Your task to perform on an android device: turn on priority inbox in the gmail app Image 0: 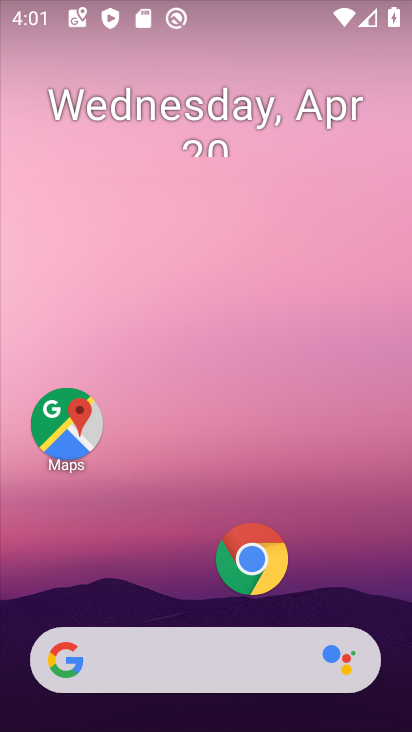
Step 0: click (156, 194)
Your task to perform on an android device: turn on priority inbox in the gmail app Image 1: 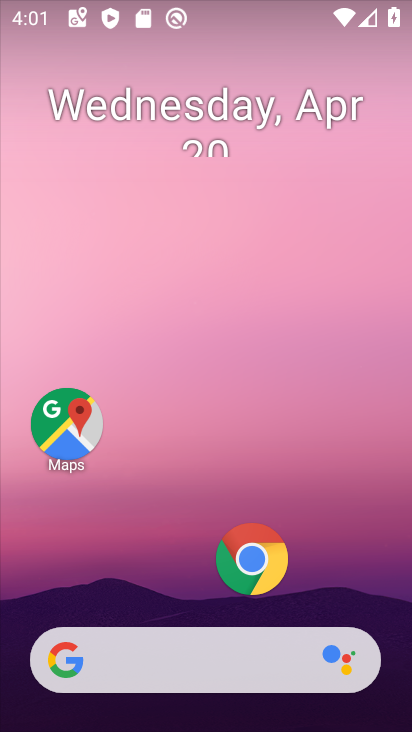
Step 1: drag from (131, 551) to (228, 100)
Your task to perform on an android device: turn on priority inbox in the gmail app Image 2: 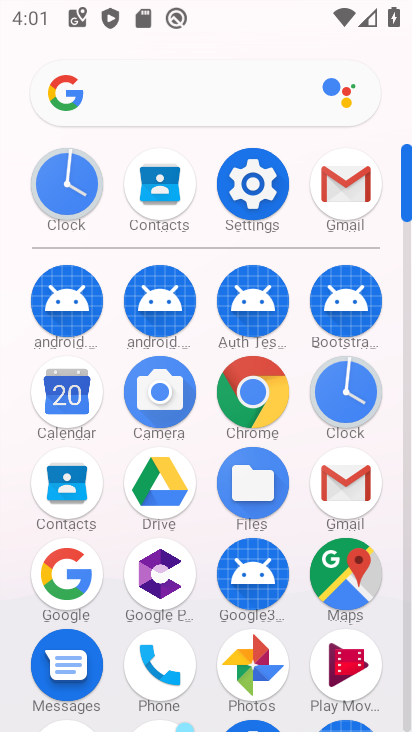
Step 2: click (338, 181)
Your task to perform on an android device: turn on priority inbox in the gmail app Image 3: 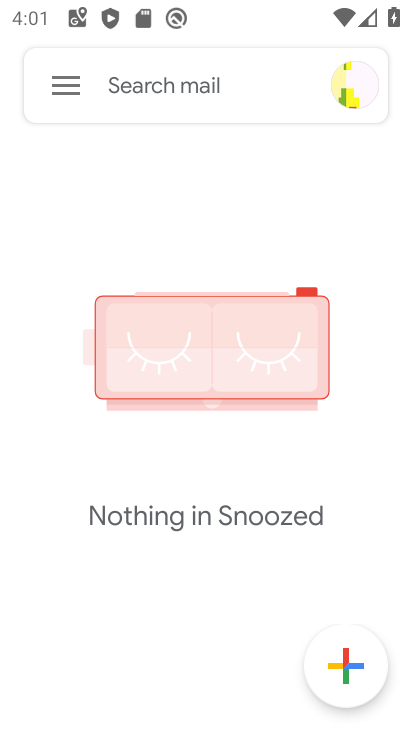
Step 3: click (51, 88)
Your task to perform on an android device: turn on priority inbox in the gmail app Image 4: 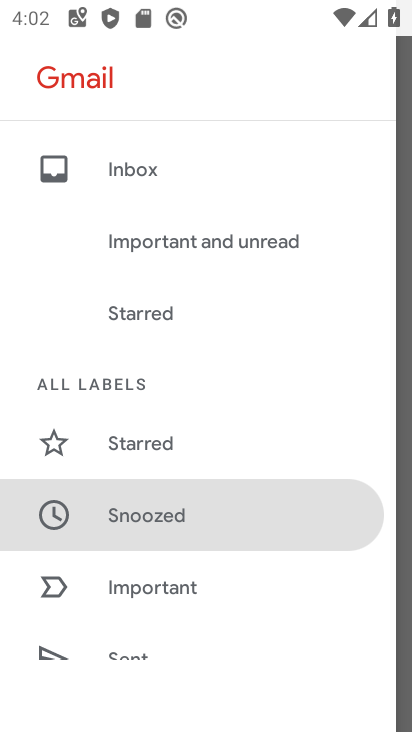
Step 4: drag from (140, 582) to (209, 285)
Your task to perform on an android device: turn on priority inbox in the gmail app Image 5: 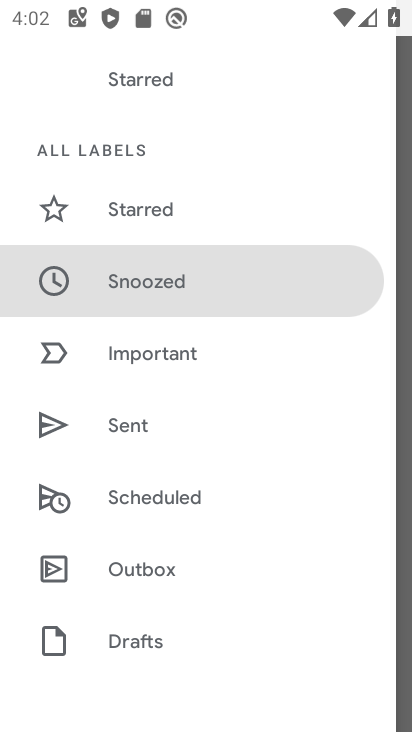
Step 5: drag from (123, 621) to (191, 387)
Your task to perform on an android device: turn on priority inbox in the gmail app Image 6: 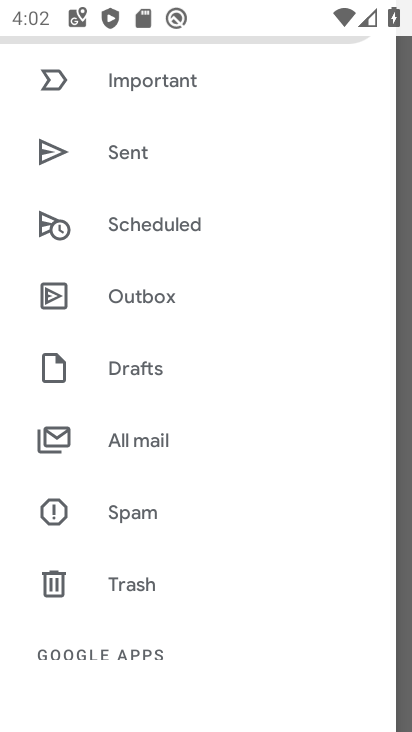
Step 6: drag from (158, 616) to (205, 405)
Your task to perform on an android device: turn on priority inbox in the gmail app Image 7: 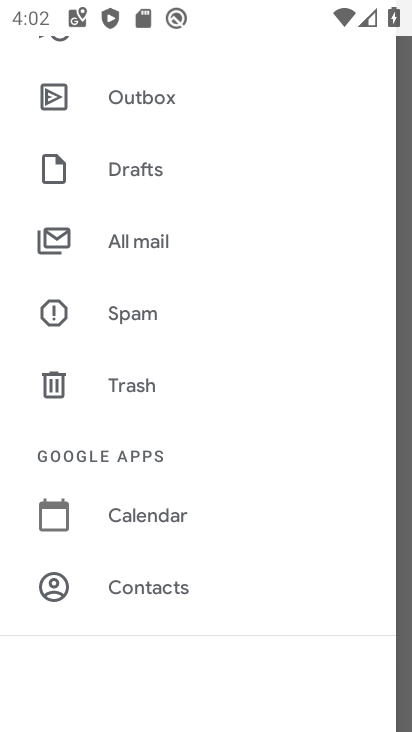
Step 7: drag from (168, 331) to (208, 496)
Your task to perform on an android device: turn on priority inbox in the gmail app Image 8: 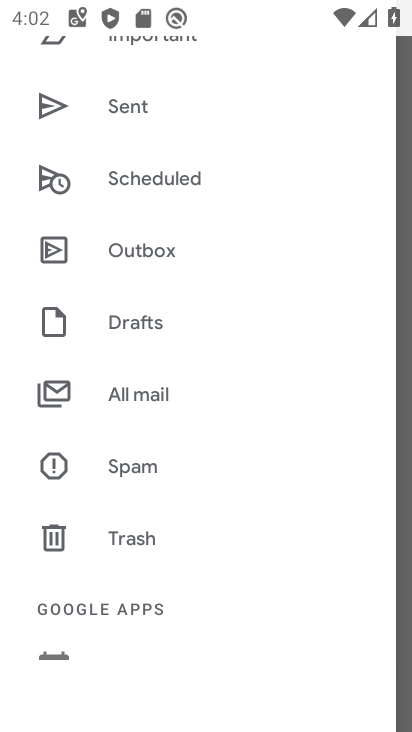
Step 8: drag from (210, 438) to (305, 249)
Your task to perform on an android device: turn on priority inbox in the gmail app Image 9: 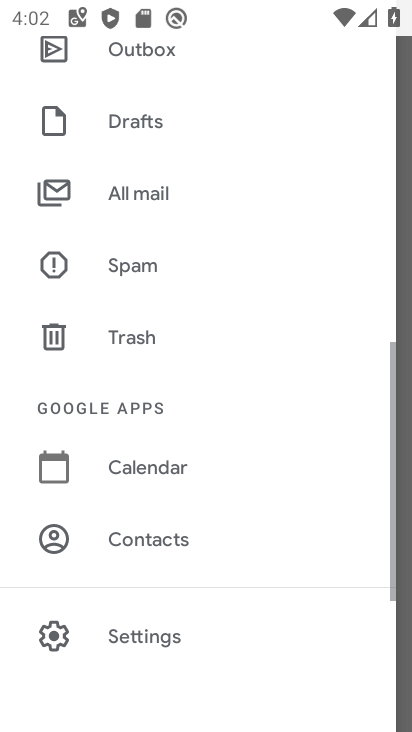
Step 9: drag from (153, 561) to (185, 332)
Your task to perform on an android device: turn on priority inbox in the gmail app Image 10: 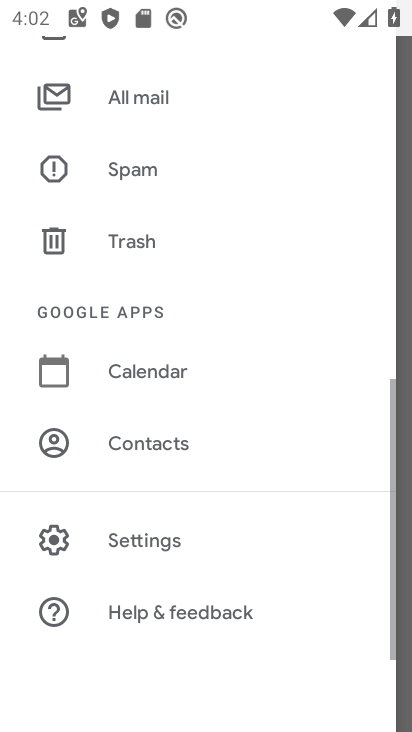
Step 10: click (170, 542)
Your task to perform on an android device: turn on priority inbox in the gmail app Image 11: 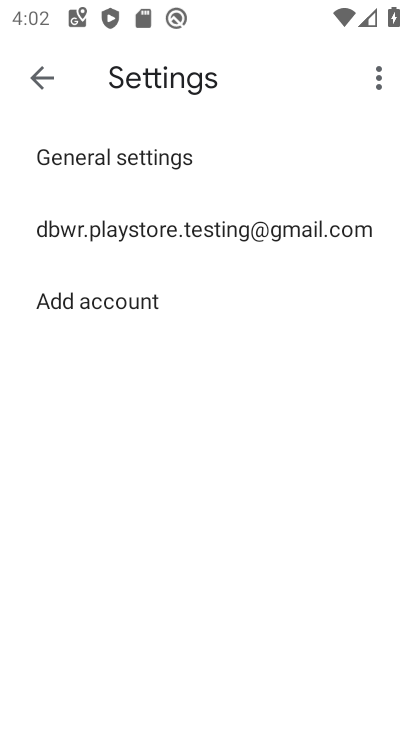
Step 11: click (257, 227)
Your task to perform on an android device: turn on priority inbox in the gmail app Image 12: 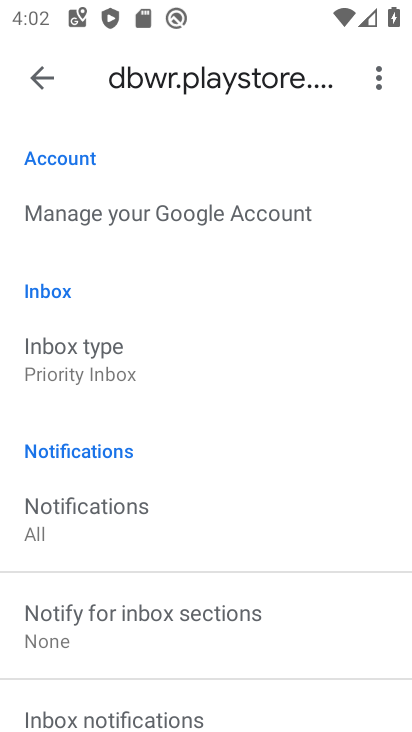
Step 12: click (98, 369)
Your task to perform on an android device: turn on priority inbox in the gmail app Image 13: 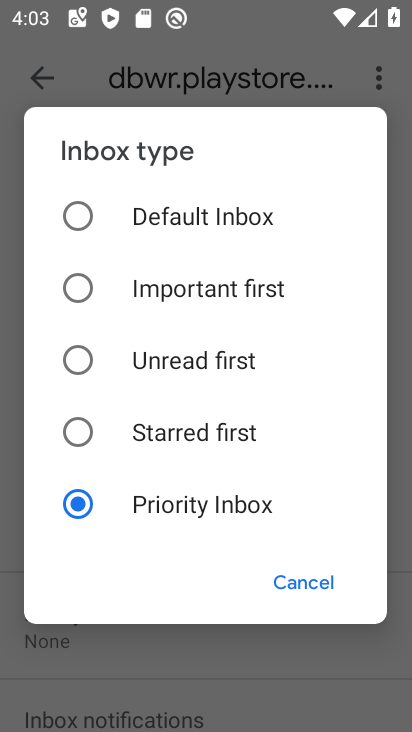
Step 13: task complete